Your task to perform on an android device: allow cookies in the chrome app Image 0: 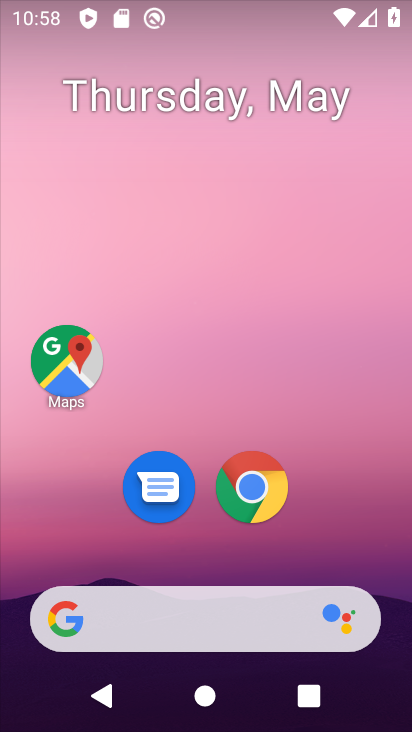
Step 0: click (245, 498)
Your task to perform on an android device: allow cookies in the chrome app Image 1: 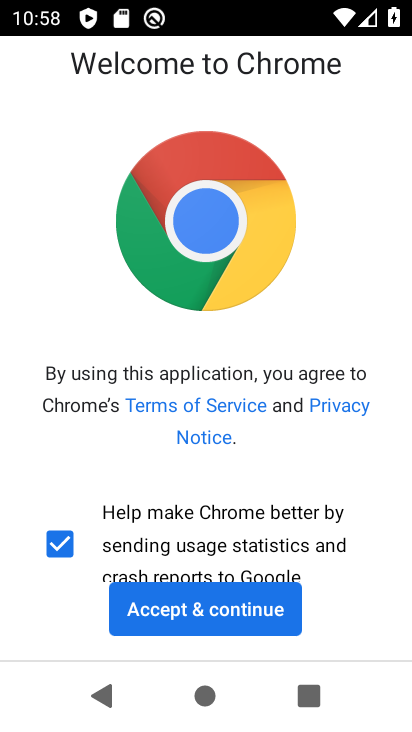
Step 1: click (193, 615)
Your task to perform on an android device: allow cookies in the chrome app Image 2: 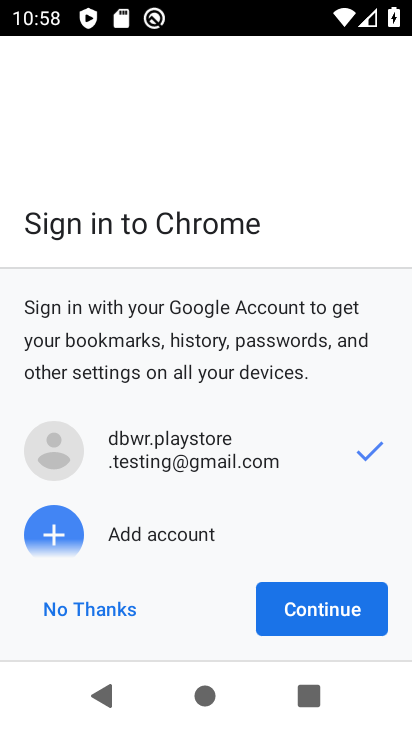
Step 2: click (359, 607)
Your task to perform on an android device: allow cookies in the chrome app Image 3: 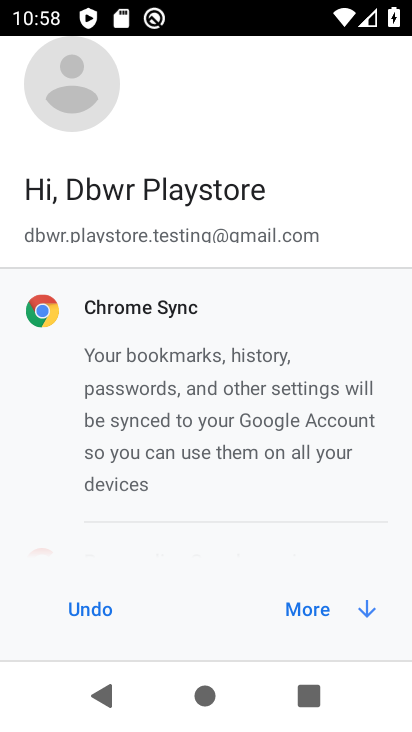
Step 3: click (303, 614)
Your task to perform on an android device: allow cookies in the chrome app Image 4: 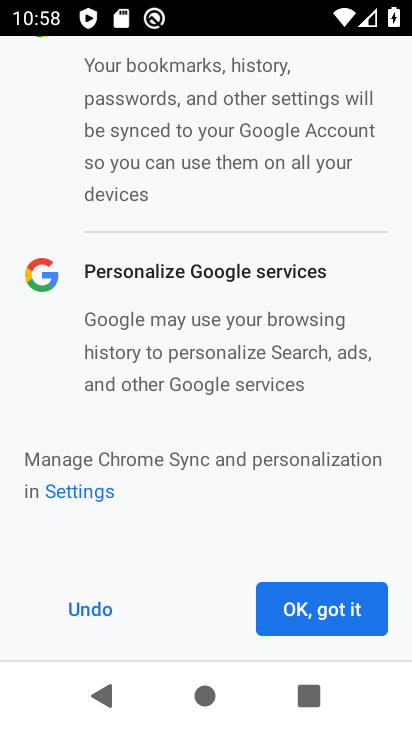
Step 4: click (301, 609)
Your task to perform on an android device: allow cookies in the chrome app Image 5: 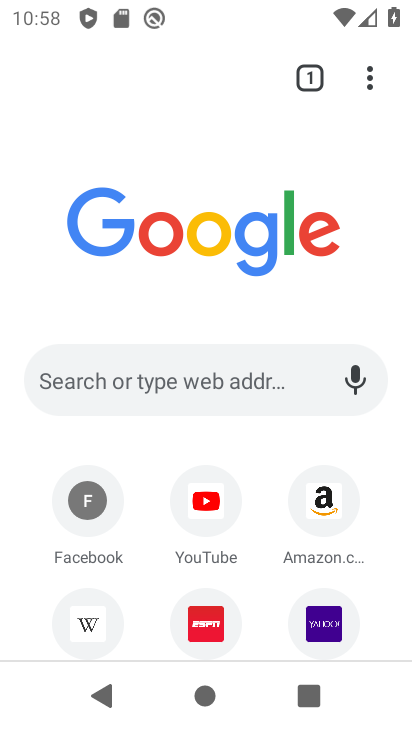
Step 5: drag from (382, 70) to (188, 543)
Your task to perform on an android device: allow cookies in the chrome app Image 6: 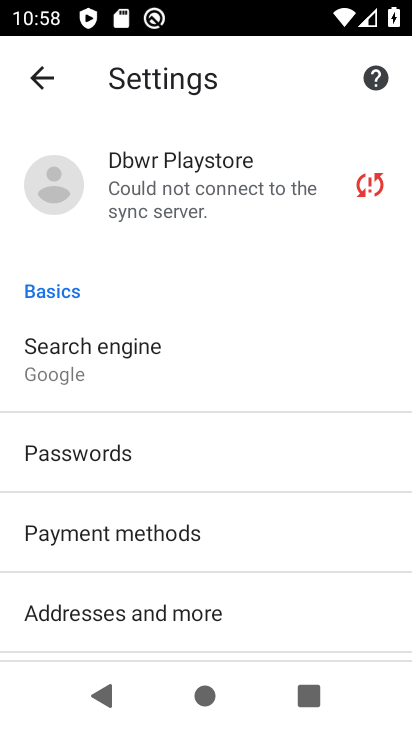
Step 6: drag from (184, 586) to (257, 203)
Your task to perform on an android device: allow cookies in the chrome app Image 7: 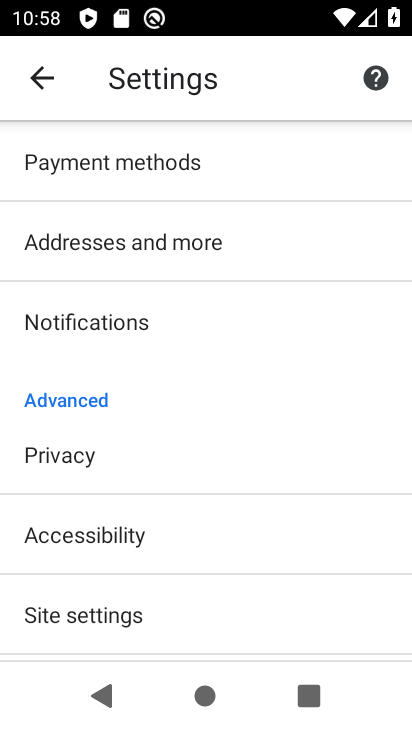
Step 7: click (120, 629)
Your task to perform on an android device: allow cookies in the chrome app Image 8: 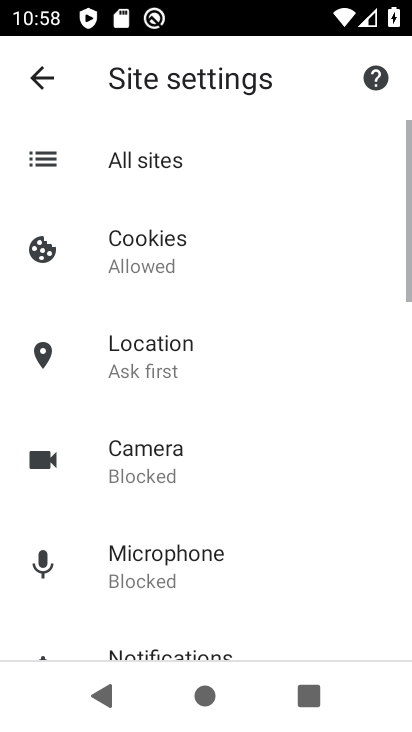
Step 8: click (140, 290)
Your task to perform on an android device: allow cookies in the chrome app Image 9: 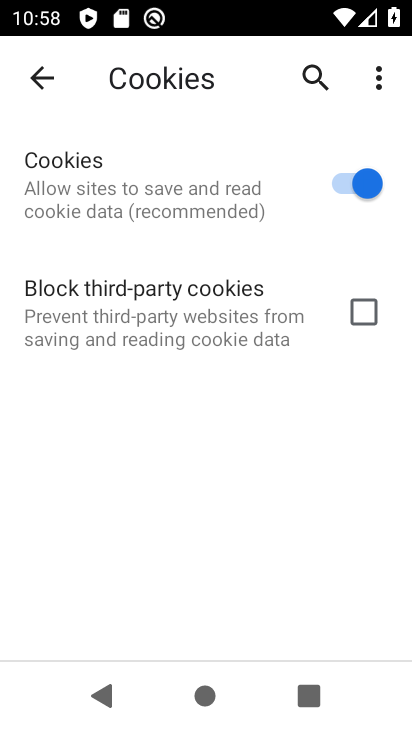
Step 9: task complete